Your task to perform on an android device: turn on improve location accuracy Image 0: 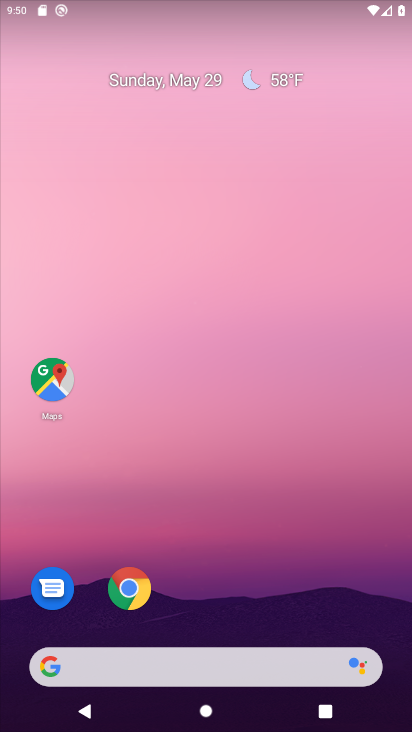
Step 0: drag from (254, 713) to (216, 242)
Your task to perform on an android device: turn on improve location accuracy Image 1: 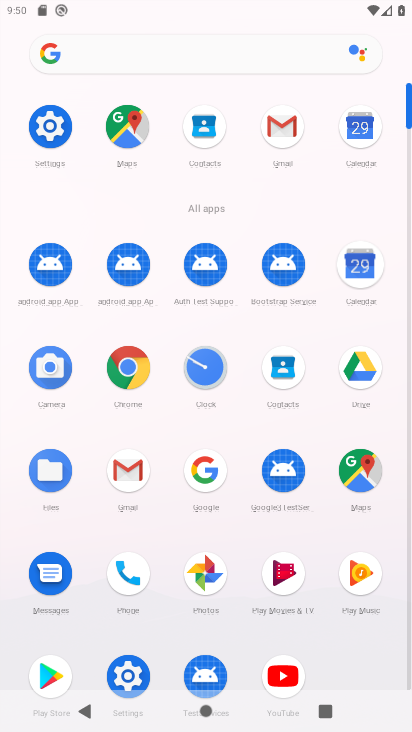
Step 1: click (123, 686)
Your task to perform on an android device: turn on improve location accuracy Image 2: 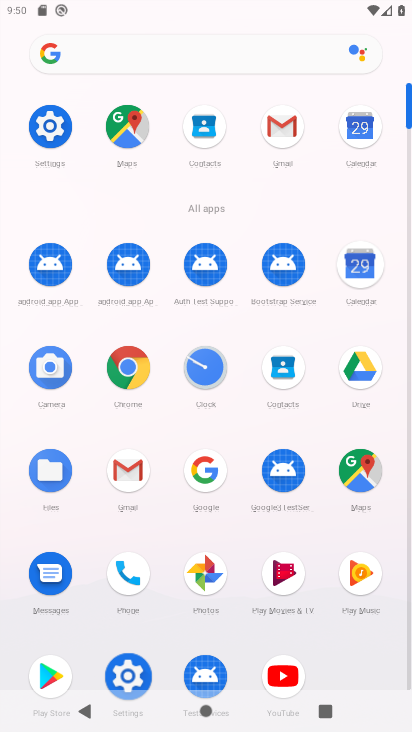
Step 2: click (122, 687)
Your task to perform on an android device: turn on improve location accuracy Image 3: 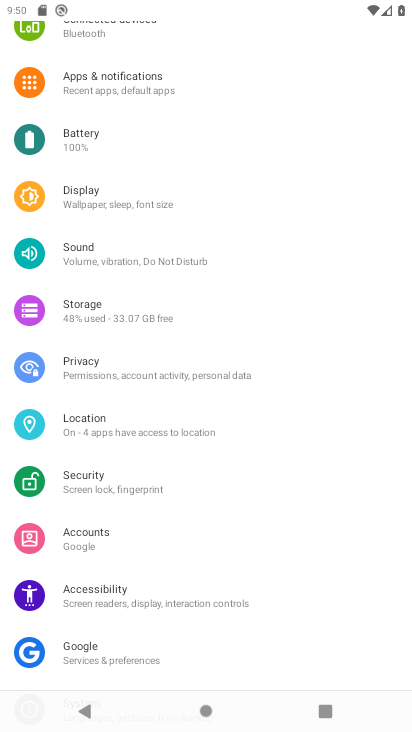
Step 3: click (66, 360)
Your task to perform on an android device: turn on improve location accuracy Image 4: 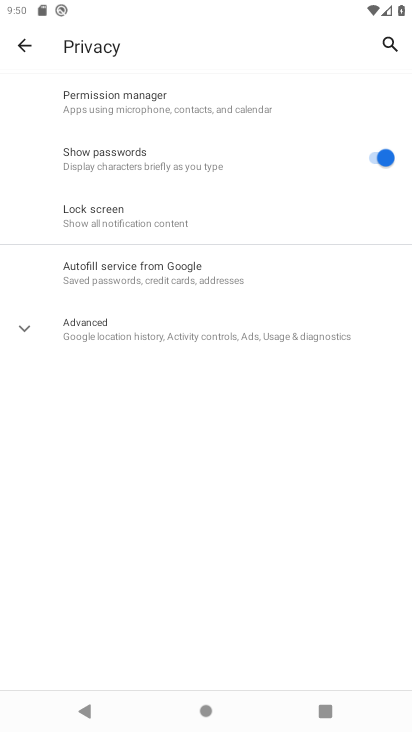
Step 4: click (17, 44)
Your task to perform on an android device: turn on improve location accuracy Image 5: 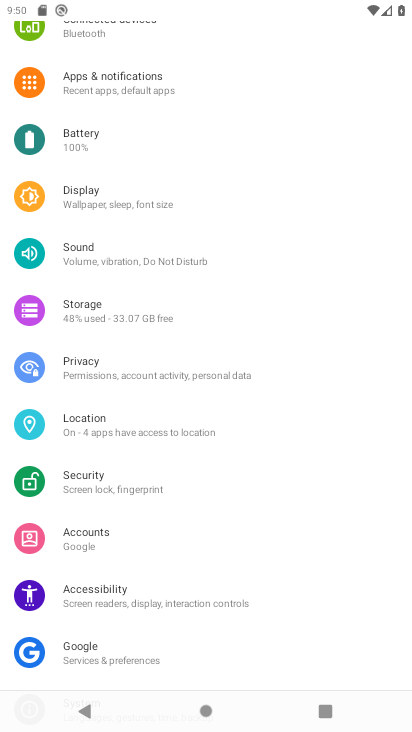
Step 5: click (88, 418)
Your task to perform on an android device: turn on improve location accuracy Image 6: 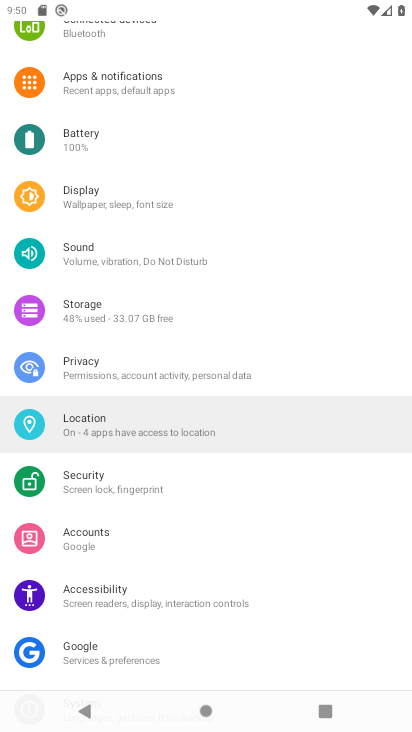
Step 6: click (91, 417)
Your task to perform on an android device: turn on improve location accuracy Image 7: 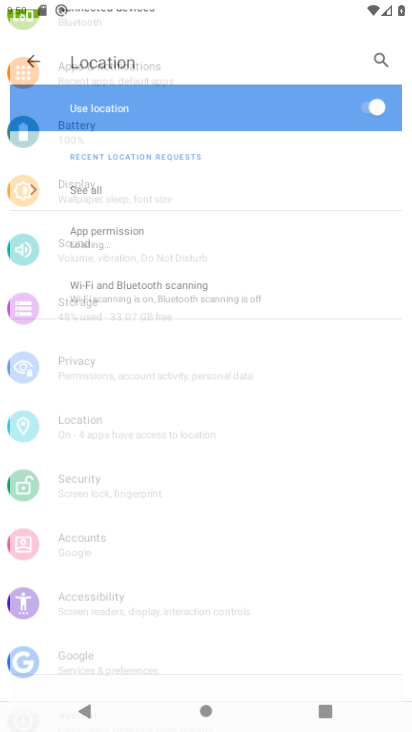
Step 7: click (92, 417)
Your task to perform on an android device: turn on improve location accuracy Image 8: 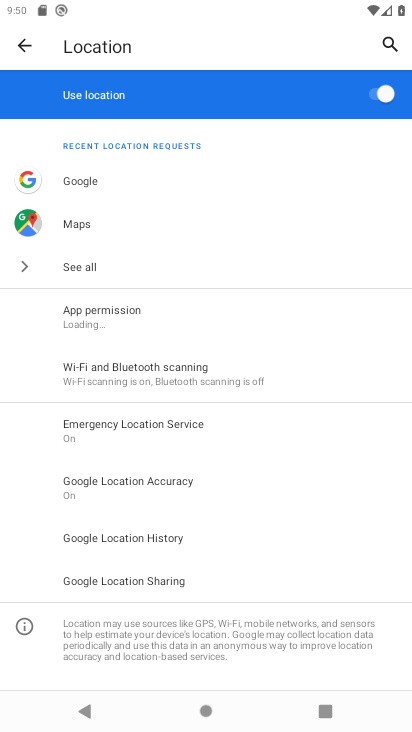
Step 8: click (140, 479)
Your task to perform on an android device: turn on improve location accuracy Image 9: 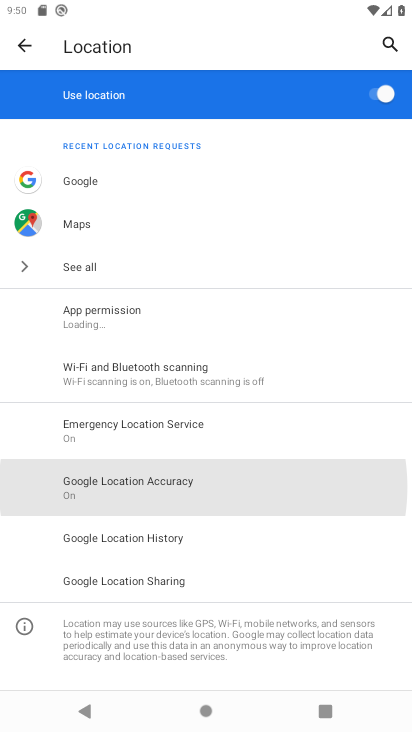
Step 9: click (142, 475)
Your task to perform on an android device: turn on improve location accuracy Image 10: 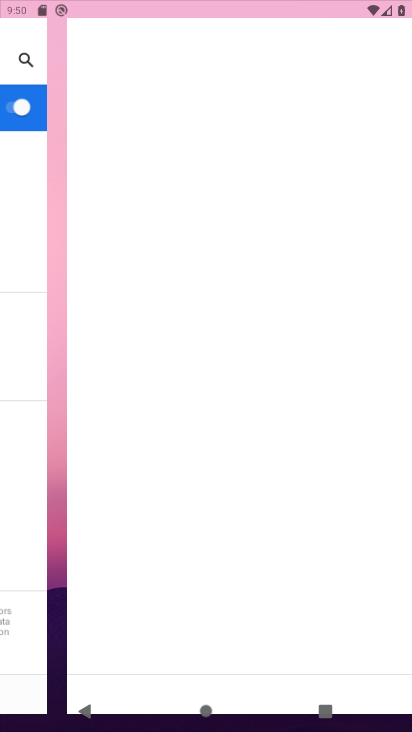
Step 10: click (142, 475)
Your task to perform on an android device: turn on improve location accuracy Image 11: 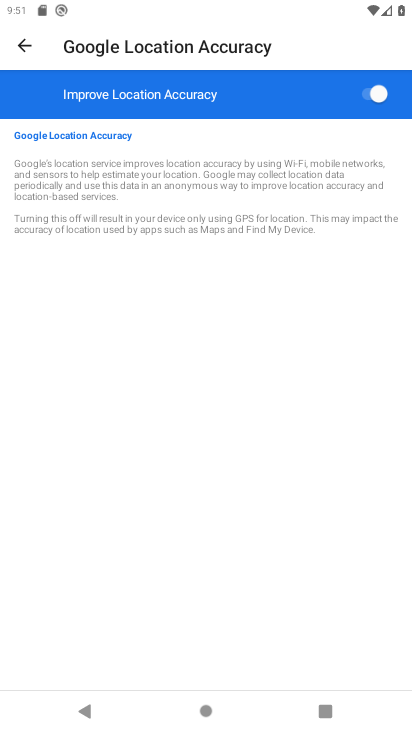
Step 11: task complete